Your task to perform on an android device: Go to CNN.com Image 0: 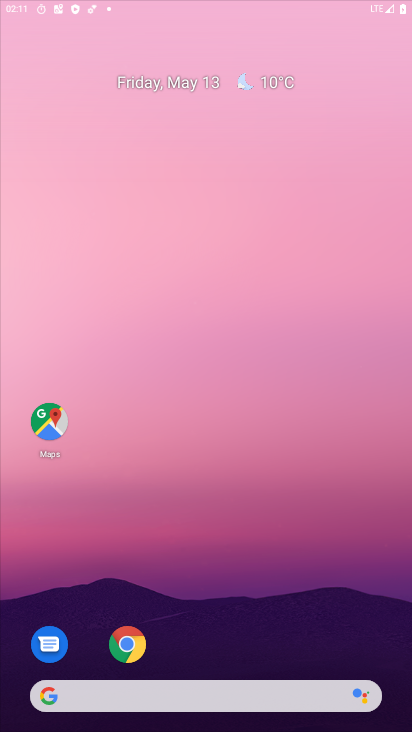
Step 0: drag from (329, 522) to (361, 48)
Your task to perform on an android device: Go to CNN.com Image 1: 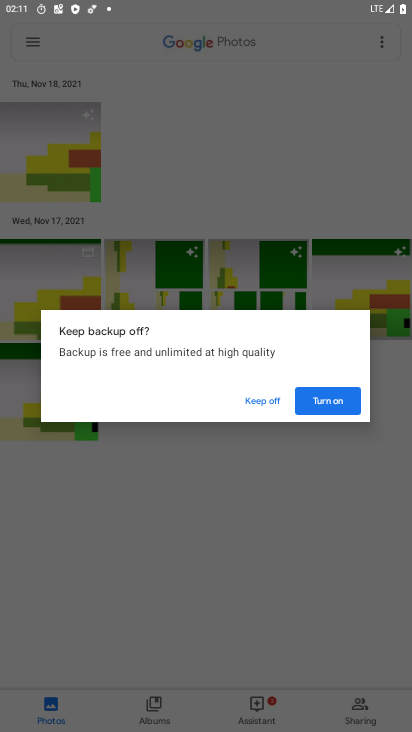
Step 1: press home button
Your task to perform on an android device: Go to CNN.com Image 2: 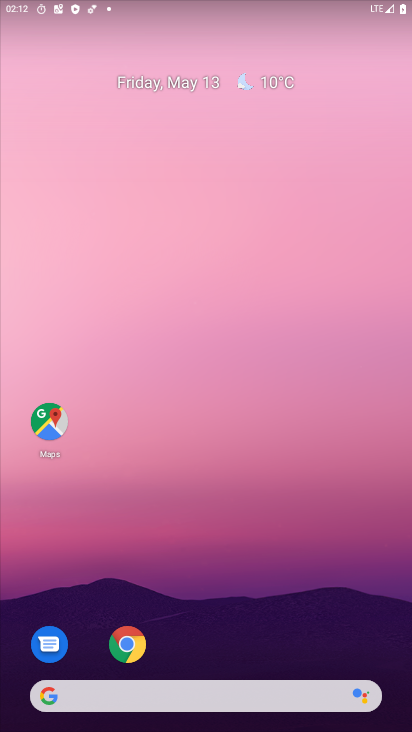
Step 2: drag from (239, 675) to (195, 48)
Your task to perform on an android device: Go to CNN.com Image 3: 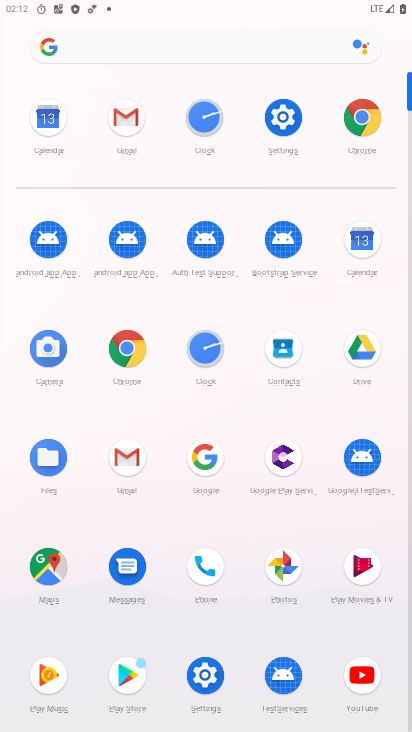
Step 3: click (122, 339)
Your task to perform on an android device: Go to CNN.com Image 4: 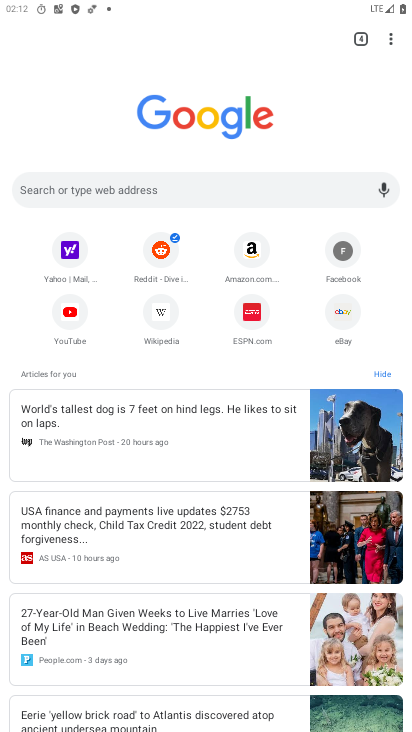
Step 4: click (198, 190)
Your task to perform on an android device: Go to CNN.com Image 5: 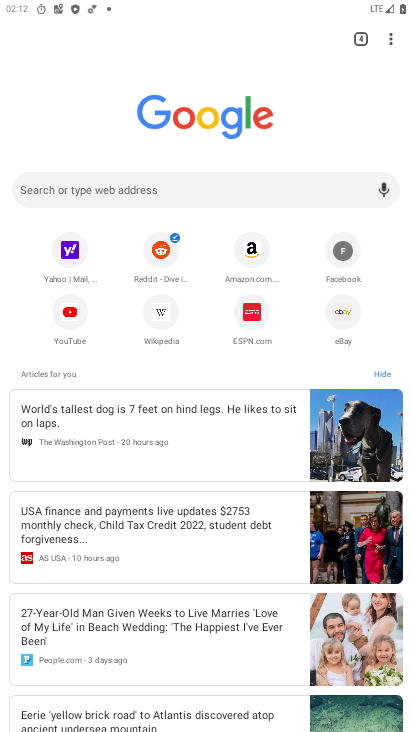
Step 5: click (198, 190)
Your task to perform on an android device: Go to CNN.com Image 6: 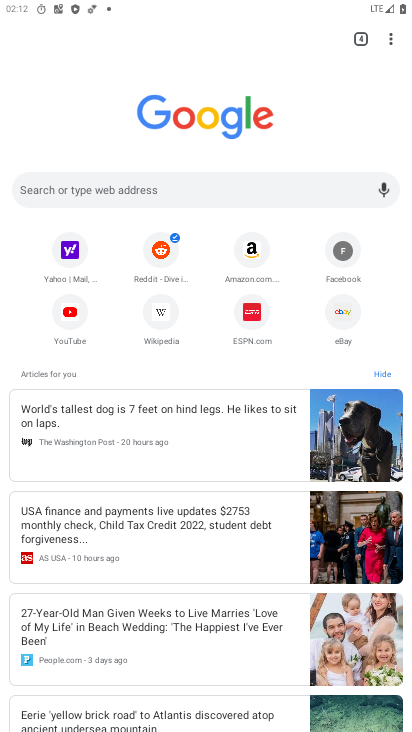
Step 6: click (228, 195)
Your task to perform on an android device: Go to CNN.com Image 7: 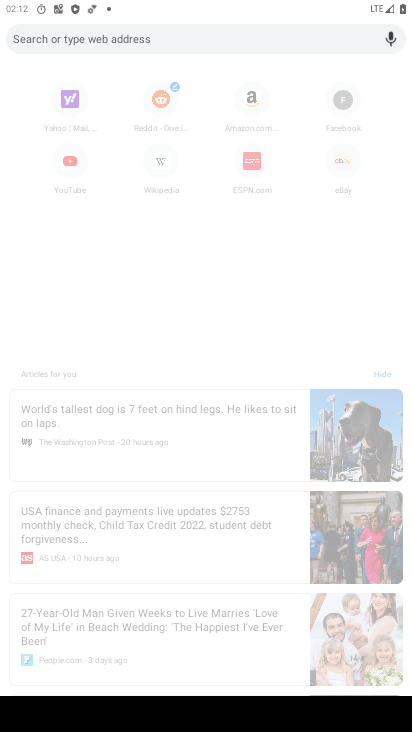
Step 7: type "cnn.com"
Your task to perform on an android device: Go to CNN.com Image 8: 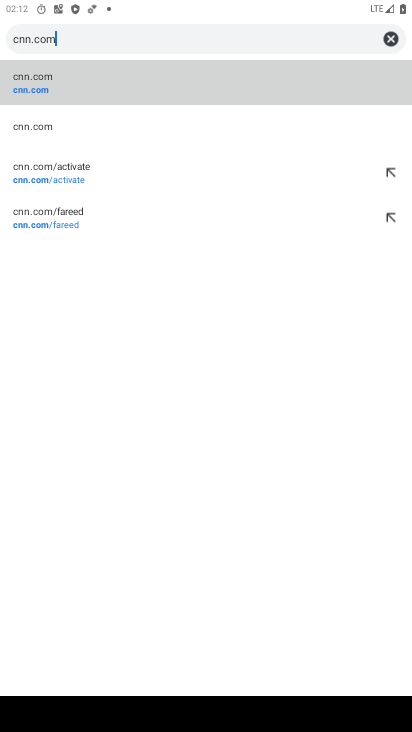
Step 8: click (85, 81)
Your task to perform on an android device: Go to CNN.com Image 9: 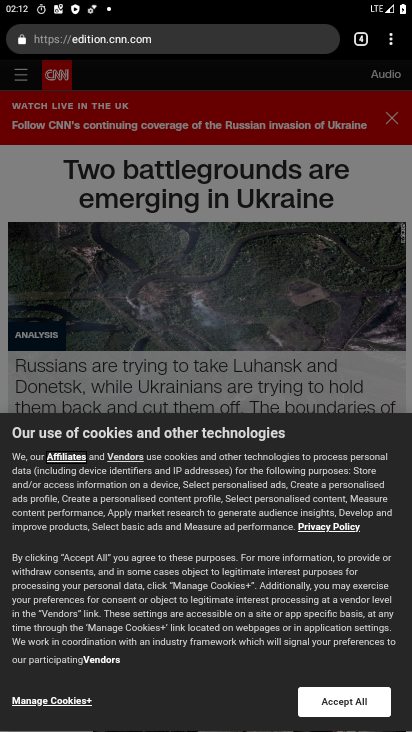
Step 9: task complete